Your task to perform on an android device: What's the weather going to be tomorrow? Image 0: 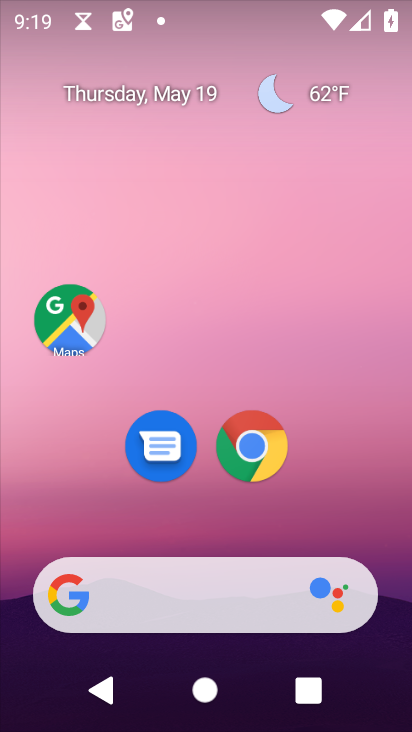
Step 0: click (224, 601)
Your task to perform on an android device: What's the weather going to be tomorrow? Image 1: 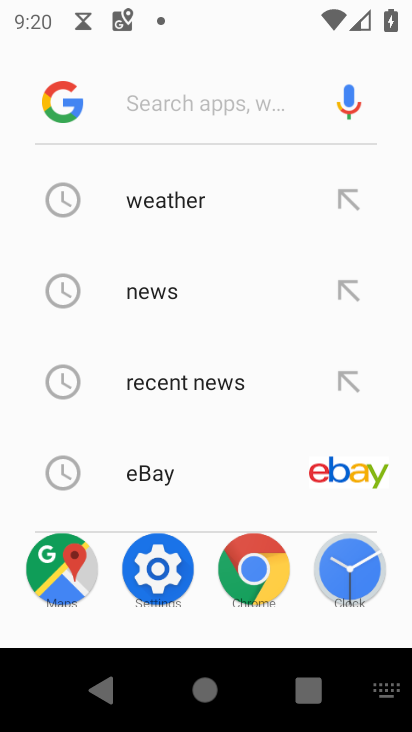
Step 1: type "what's the weather going to be tomorrow"
Your task to perform on an android device: What's the weather going to be tomorrow? Image 2: 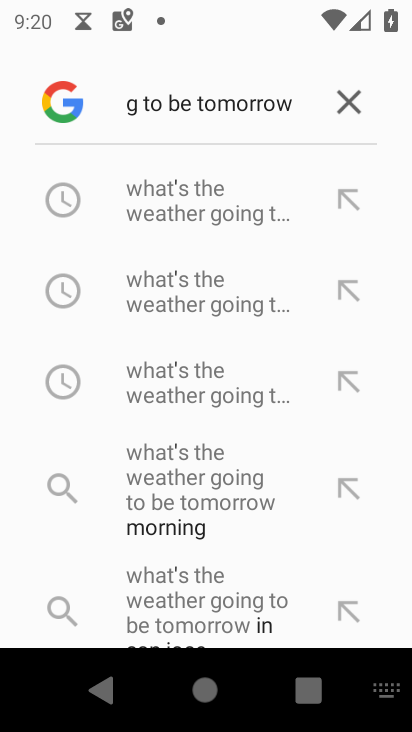
Step 2: click (184, 261)
Your task to perform on an android device: What's the weather going to be tomorrow? Image 3: 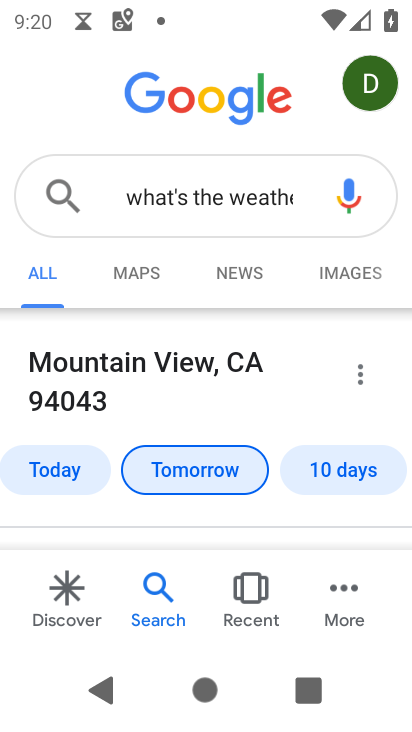
Step 3: task complete